Your task to perform on an android device: Open Youtube and go to "Your channel" Image 0: 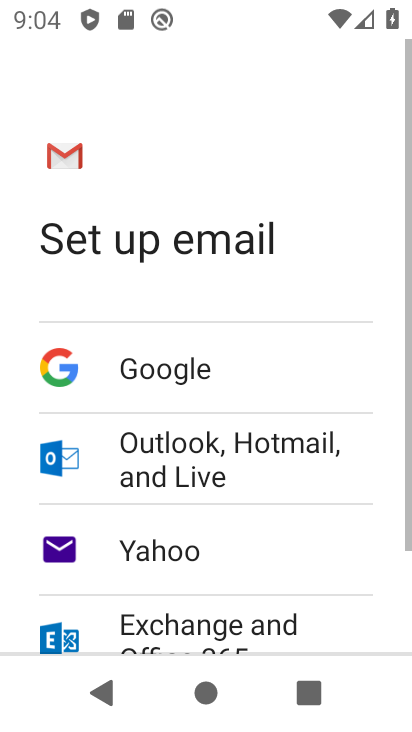
Step 0: press home button
Your task to perform on an android device: Open Youtube and go to "Your channel" Image 1: 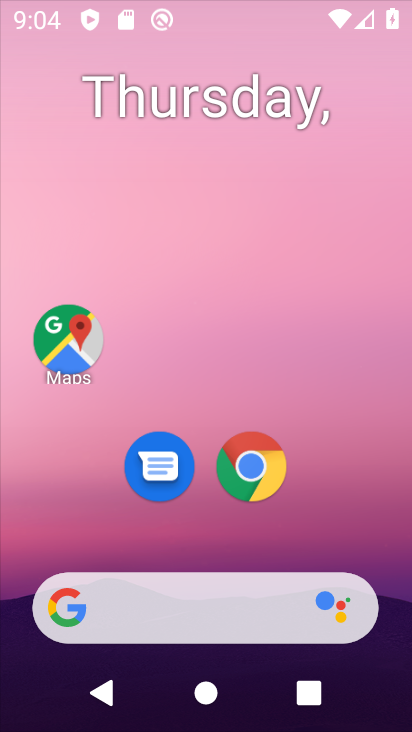
Step 1: drag from (389, 611) to (340, 37)
Your task to perform on an android device: Open Youtube and go to "Your channel" Image 2: 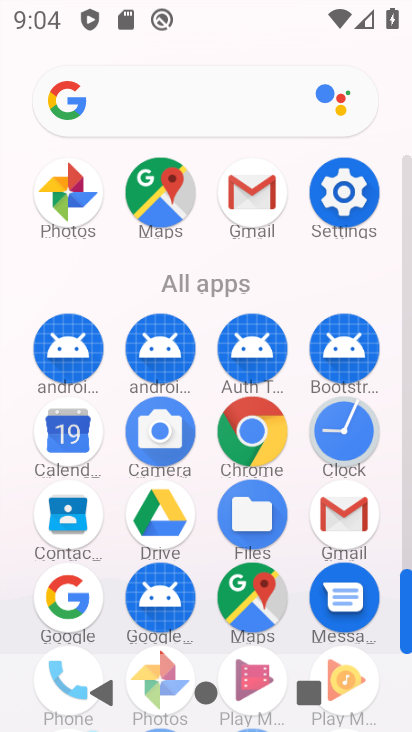
Step 2: drag from (301, 574) to (301, 86)
Your task to perform on an android device: Open Youtube and go to "Your channel" Image 3: 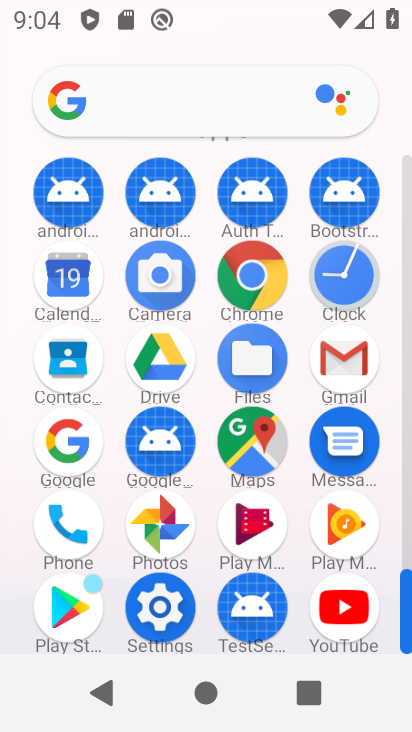
Step 3: click (348, 602)
Your task to perform on an android device: Open Youtube and go to "Your channel" Image 4: 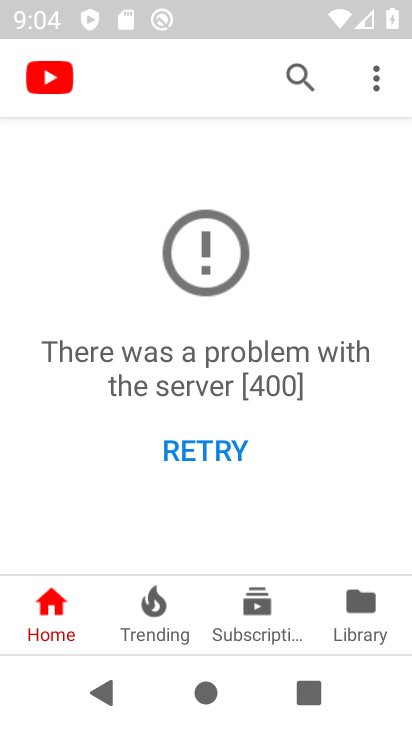
Step 4: click (213, 432)
Your task to perform on an android device: Open Youtube and go to "Your channel" Image 5: 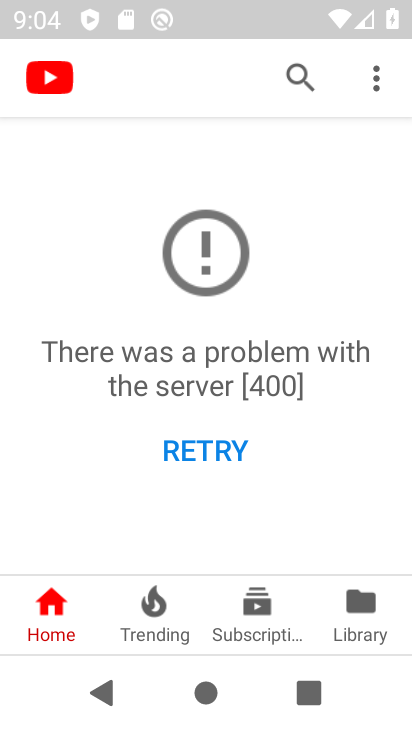
Step 5: click (202, 441)
Your task to perform on an android device: Open Youtube and go to "Your channel" Image 6: 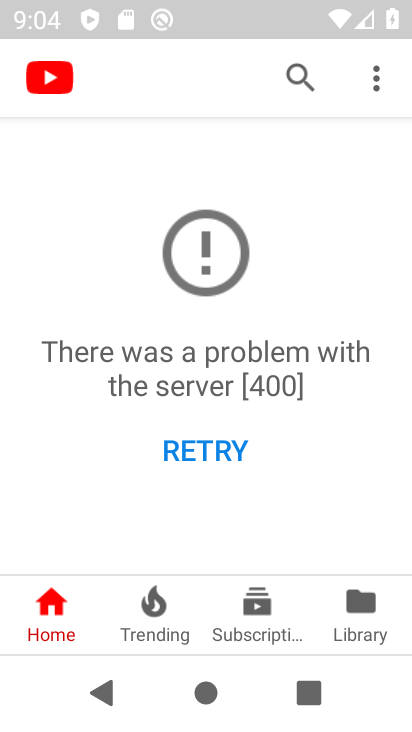
Step 6: task complete